Your task to perform on an android device: clear history in the chrome app Image 0: 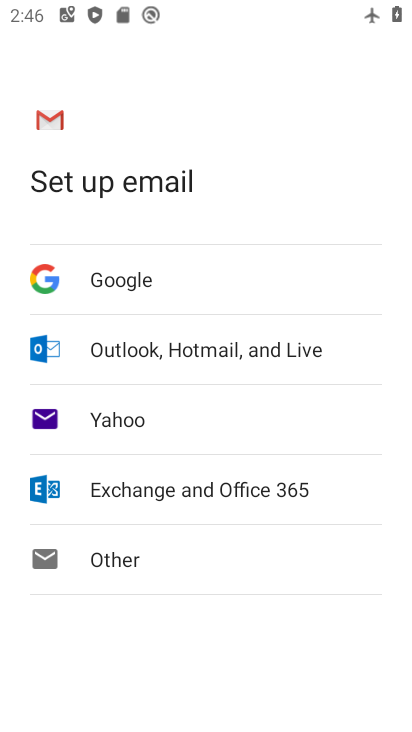
Step 0: press home button
Your task to perform on an android device: clear history in the chrome app Image 1: 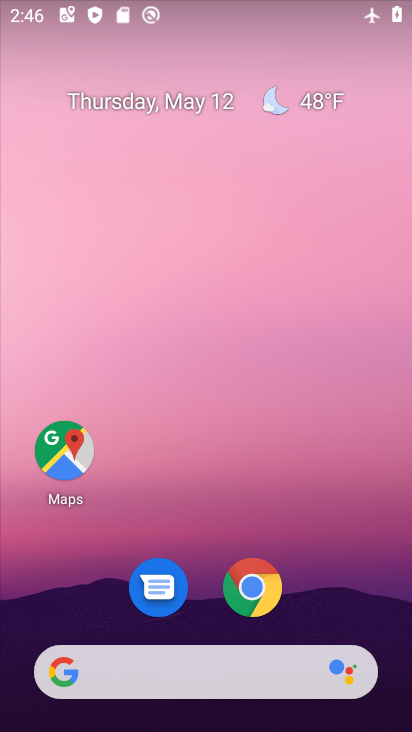
Step 1: drag from (258, 636) to (355, 20)
Your task to perform on an android device: clear history in the chrome app Image 2: 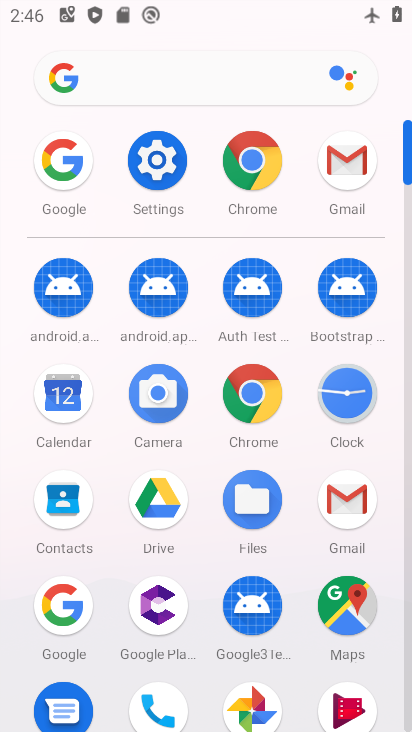
Step 2: click (243, 423)
Your task to perform on an android device: clear history in the chrome app Image 3: 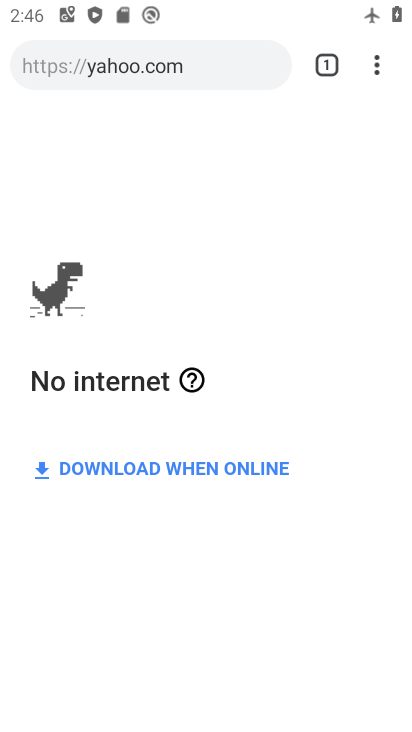
Step 3: click (369, 73)
Your task to perform on an android device: clear history in the chrome app Image 4: 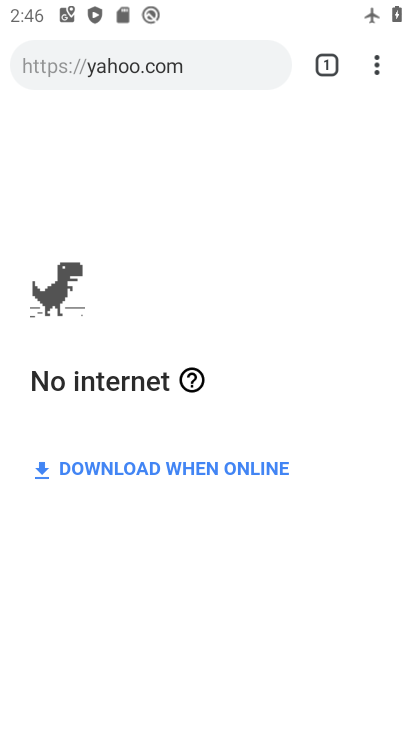
Step 4: click (382, 59)
Your task to perform on an android device: clear history in the chrome app Image 5: 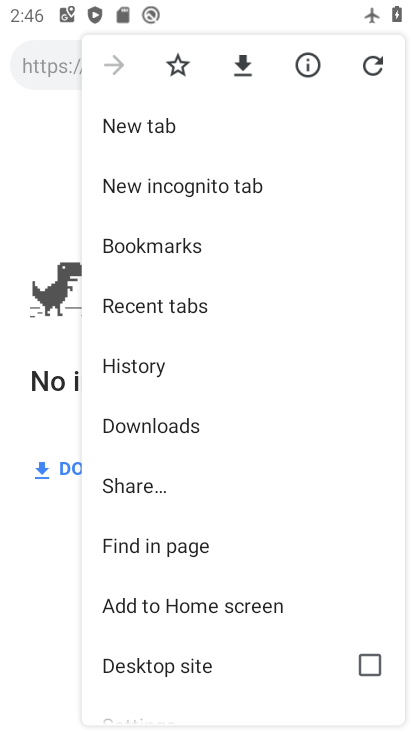
Step 5: click (163, 369)
Your task to perform on an android device: clear history in the chrome app Image 6: 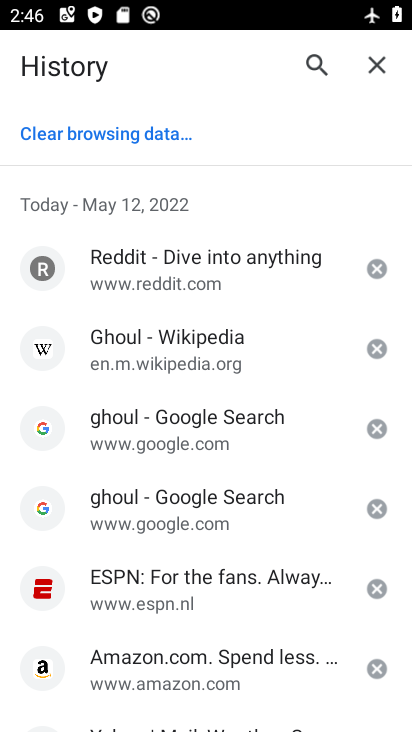
Step 6: click (145, 129)
Your task to perform on an android device: clear history in the chrome app Image 7: 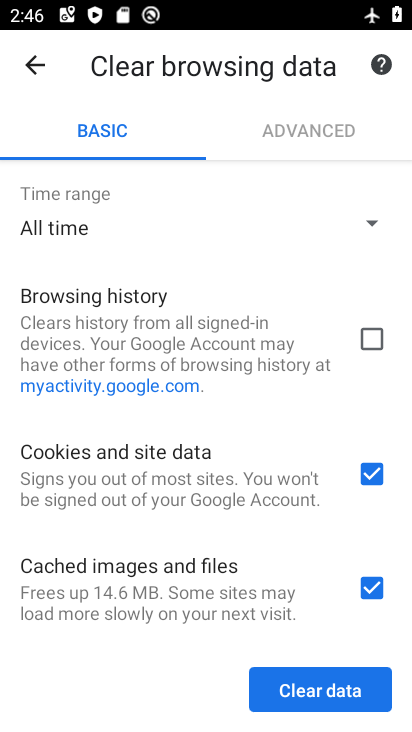
Step 7: click (378, 327)
Your task to perform on an android device: clear history in the chrome app Image 8: 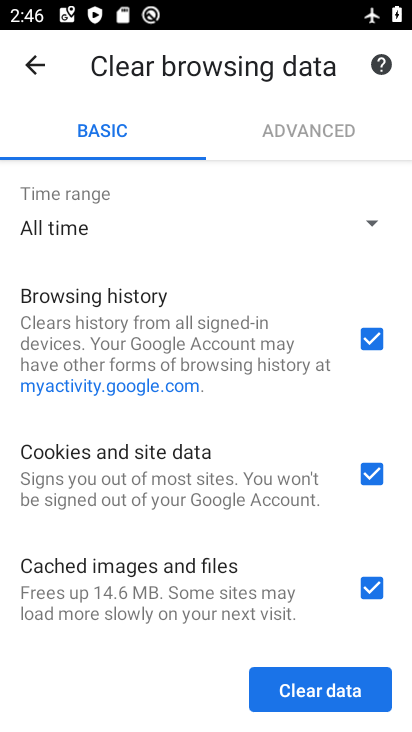
Step 8: click (371, 486)
Your task to perform on an android device: clear history in the chrome app Image 9: 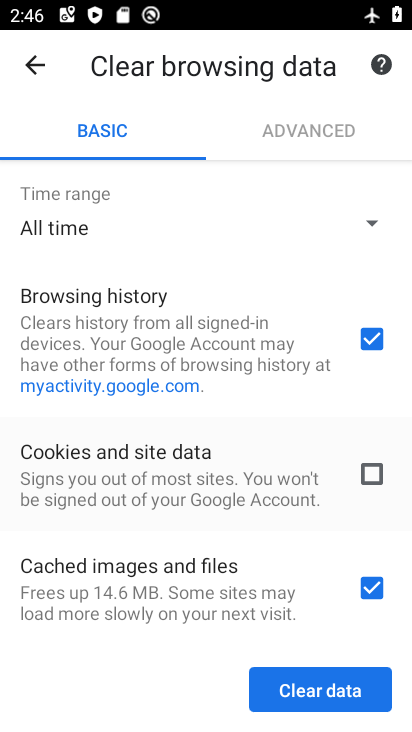
Step 9: click (373, 590)
Your task to perform on an android device: clear history in the chrome app Image 10: 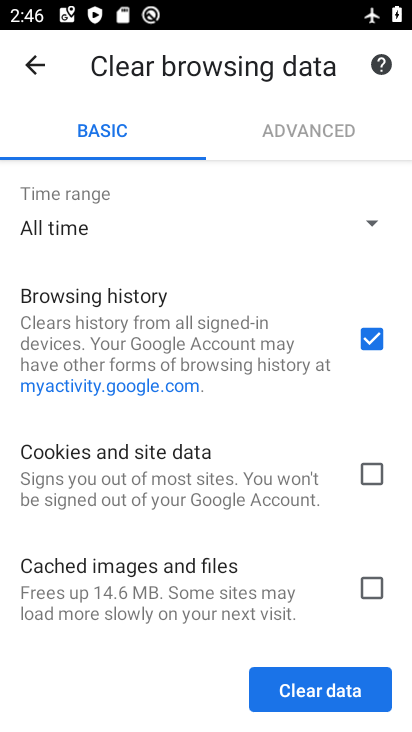
Step 10: click (297, 690)
Your task to perform on an android device: clear history in the chrome app Image 11: 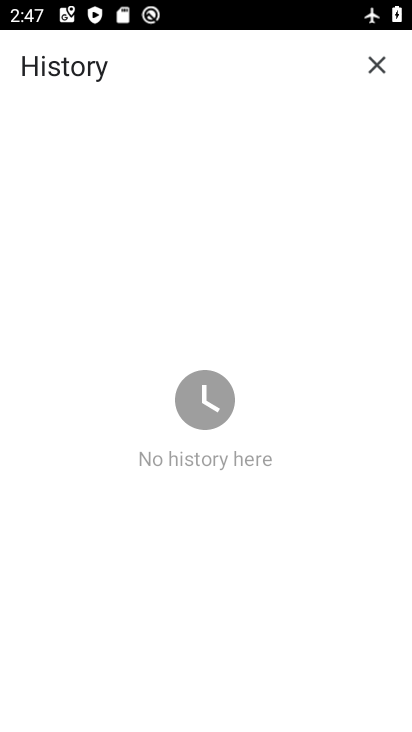
Step 11: task complete